Your task to perform on an android device: Open Google Chrome and open the bookmarks view Image 0: 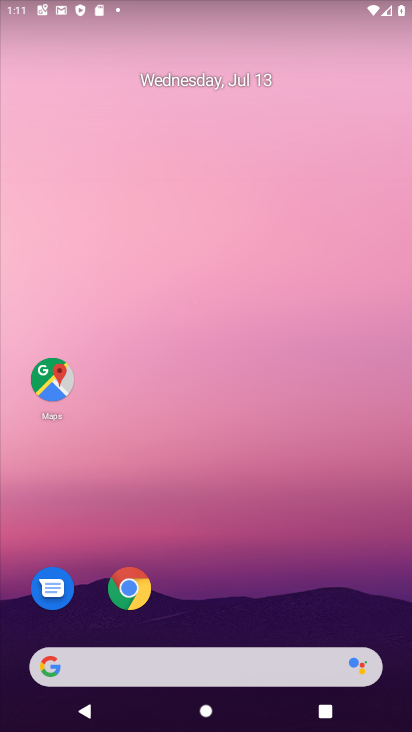
Step 0: press home button
Your task to perform on an android device: Open Google Chrome and open the bookmarks view Image 1: 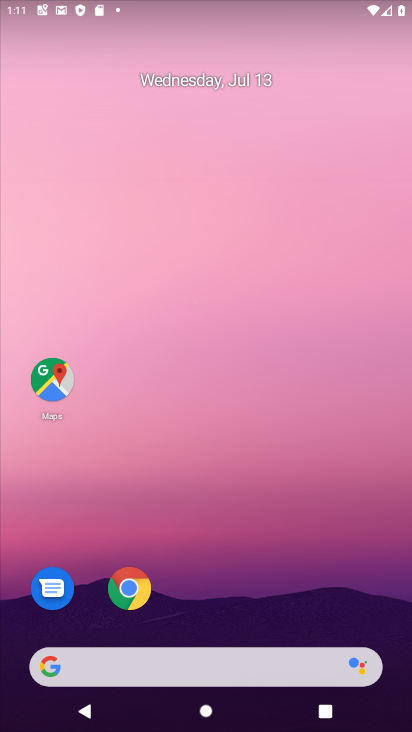
Step 1: drag from (233, 622) to (73, 261)
Your task to perform on an android device: Open Google Chrome and open the bookmarks view Image 2: 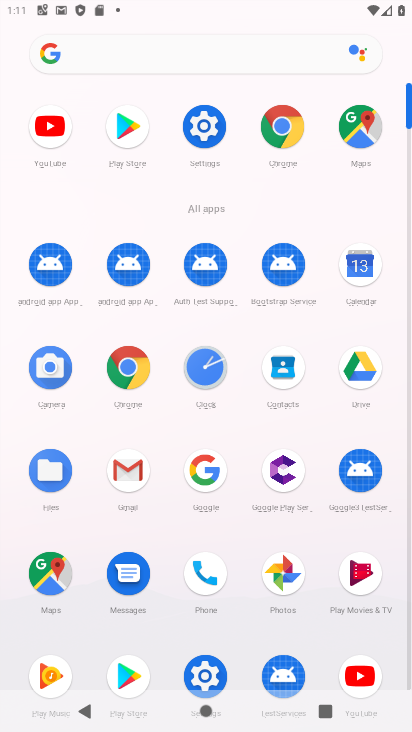
Step 2: click (106, 368)
Your task to perform on an android device: Open Google Chrome and open the bookmarks view Image 3: 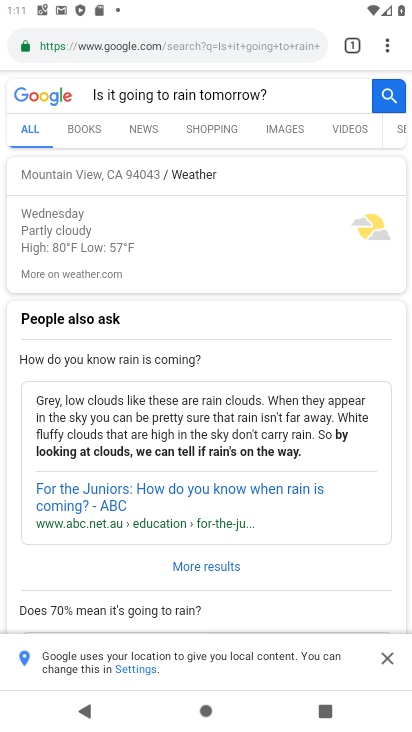
Step 3: task complete